Your task to perform on an android device: open app "Adobe Express: Graphic Design" Image 0: 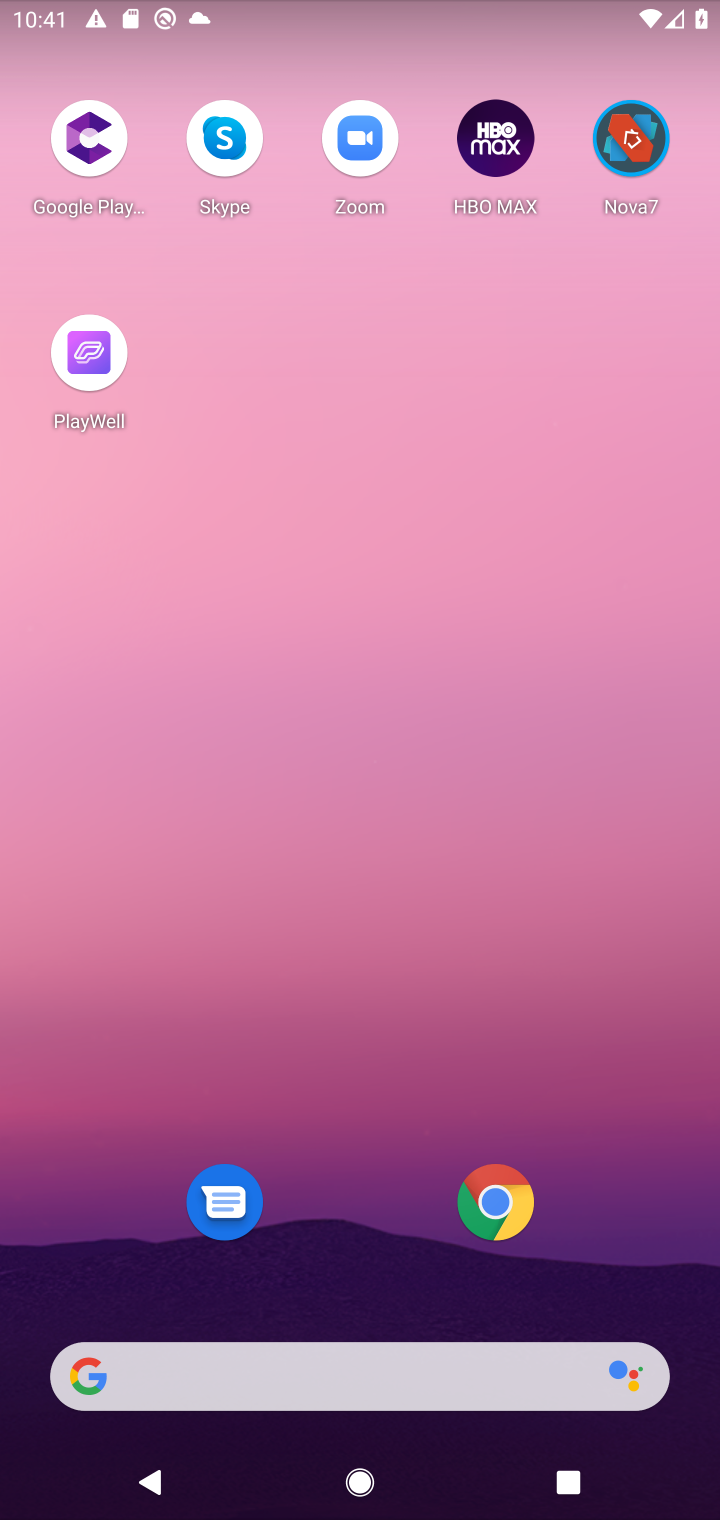
Step 0: click (428, 1390)
Your task to perform on an android device: open app "Adobe Express: Graphic Design" Image 1: 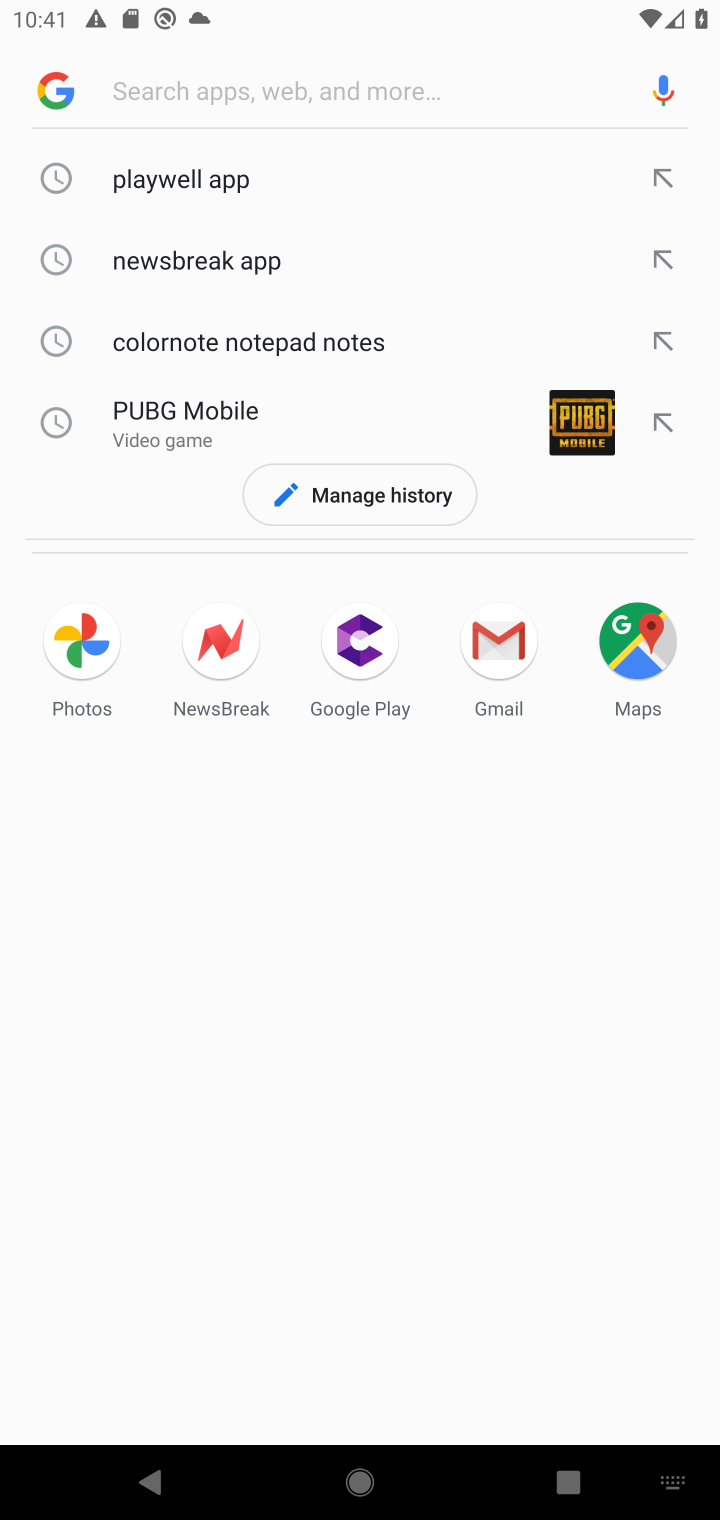
Step 1: type "adobe express"
Your task to perform on an android device: open app "Adobe Express: Graphic Design" Image 2: 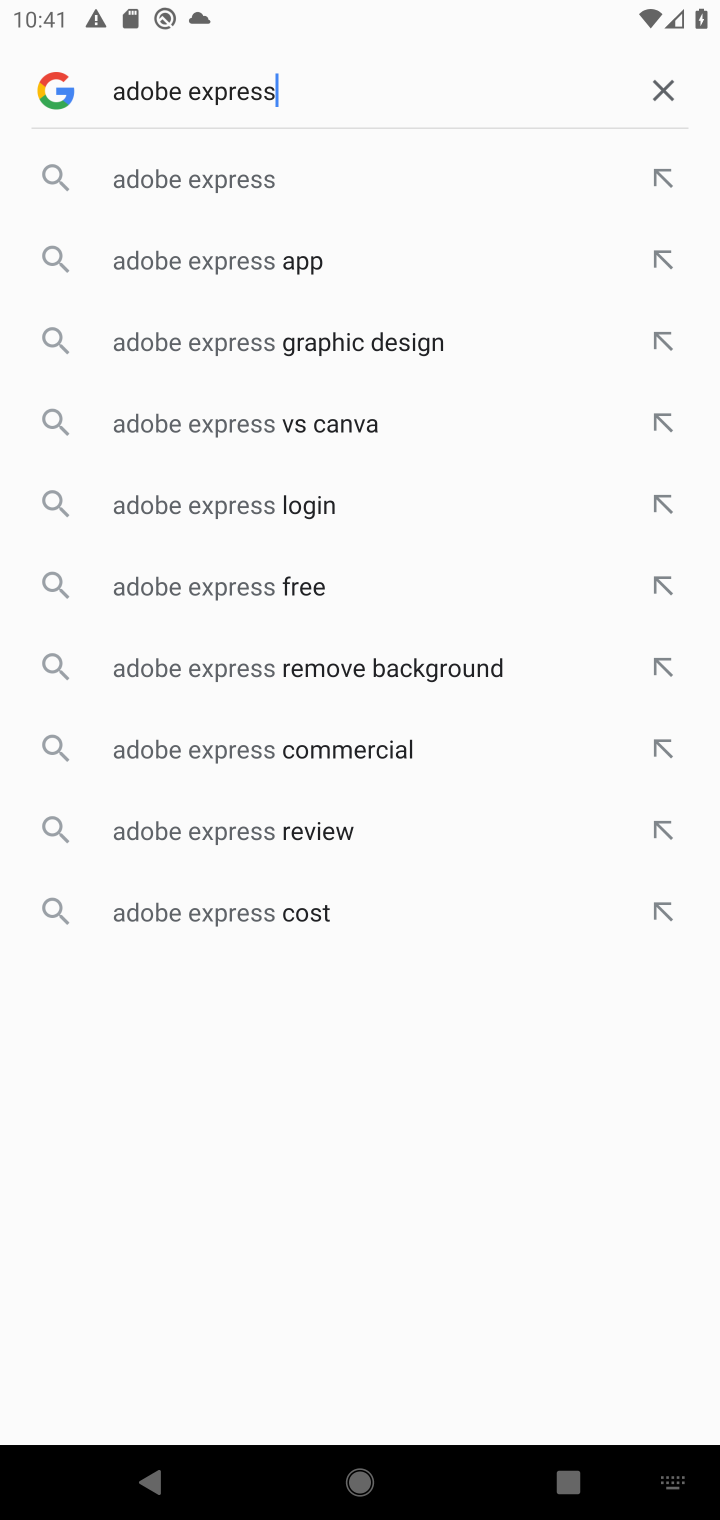
Step 2: click (314, 192)
Your task to perform on an android device: open app "Adobe Express: Graphic Design" Image 3: 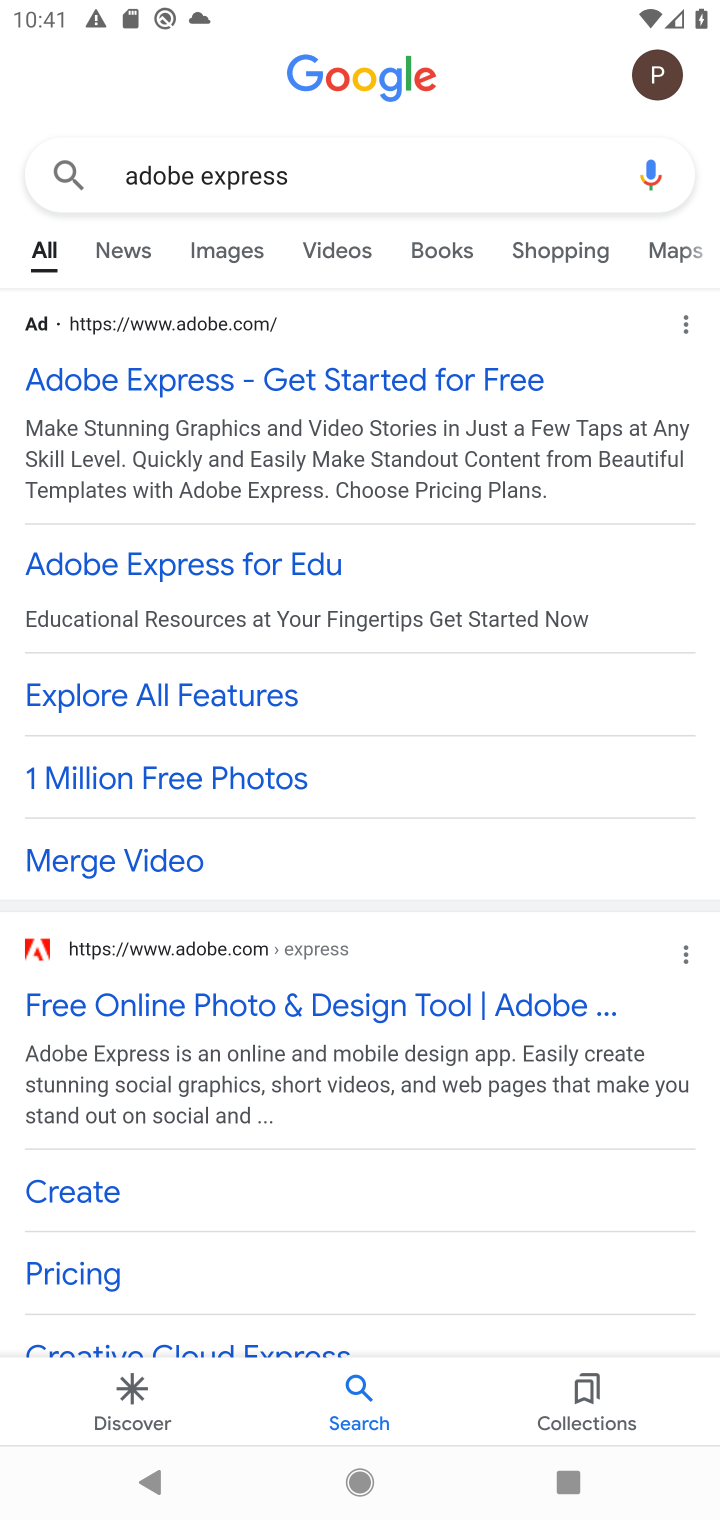
Step 3: drag from (361, 1138) to (426, 521)
Your task to perform on an android device: open app "Adobe Express: Graphic Design" Image 4: 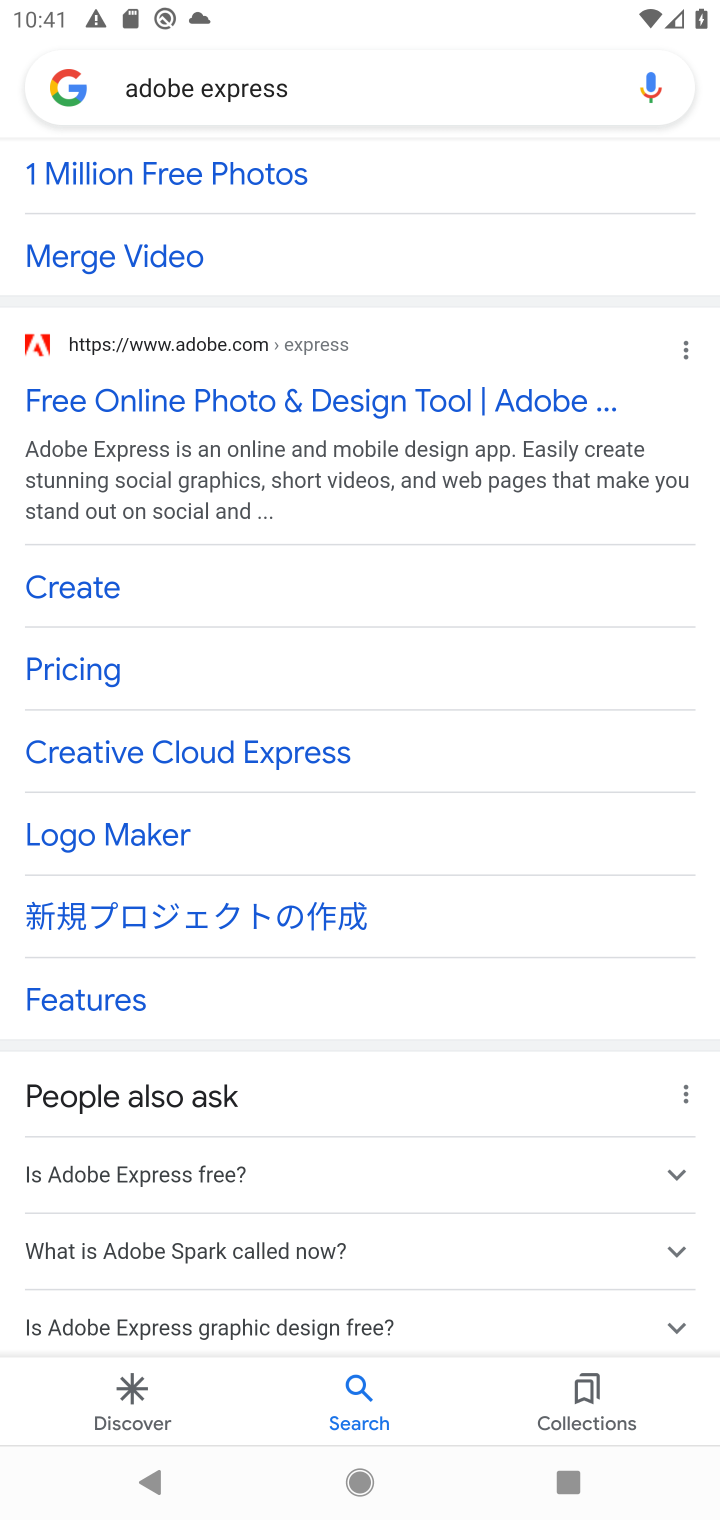
Step 4: drag from (366, 1258) to (422, 454)
Your task to perform on an android device: open app "Adobe Express: Graphic Design" Image 5: 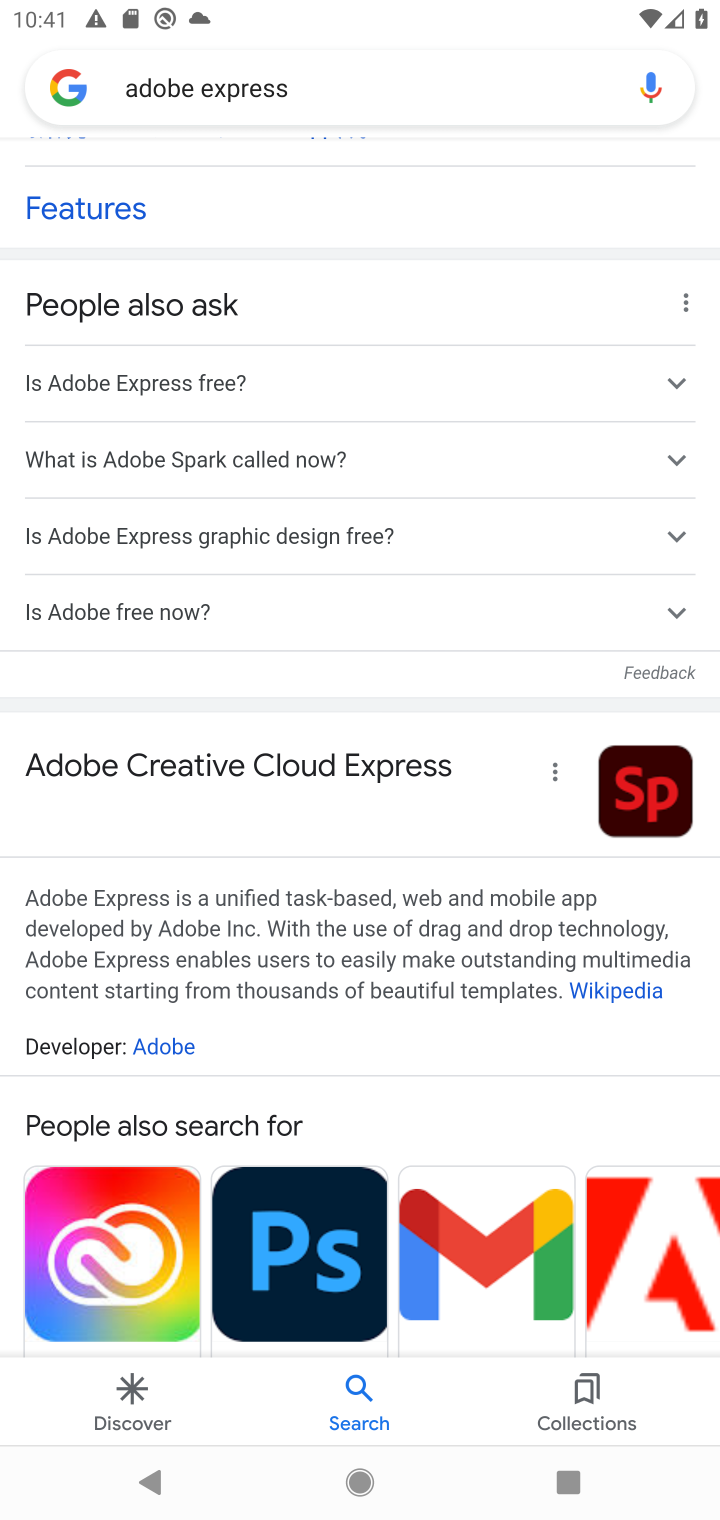
Step 5: drag from (396, 1114) to (420, 637)
Your task to perform on an android device: open app "Adobe Express: Graphic Design" Image 6: 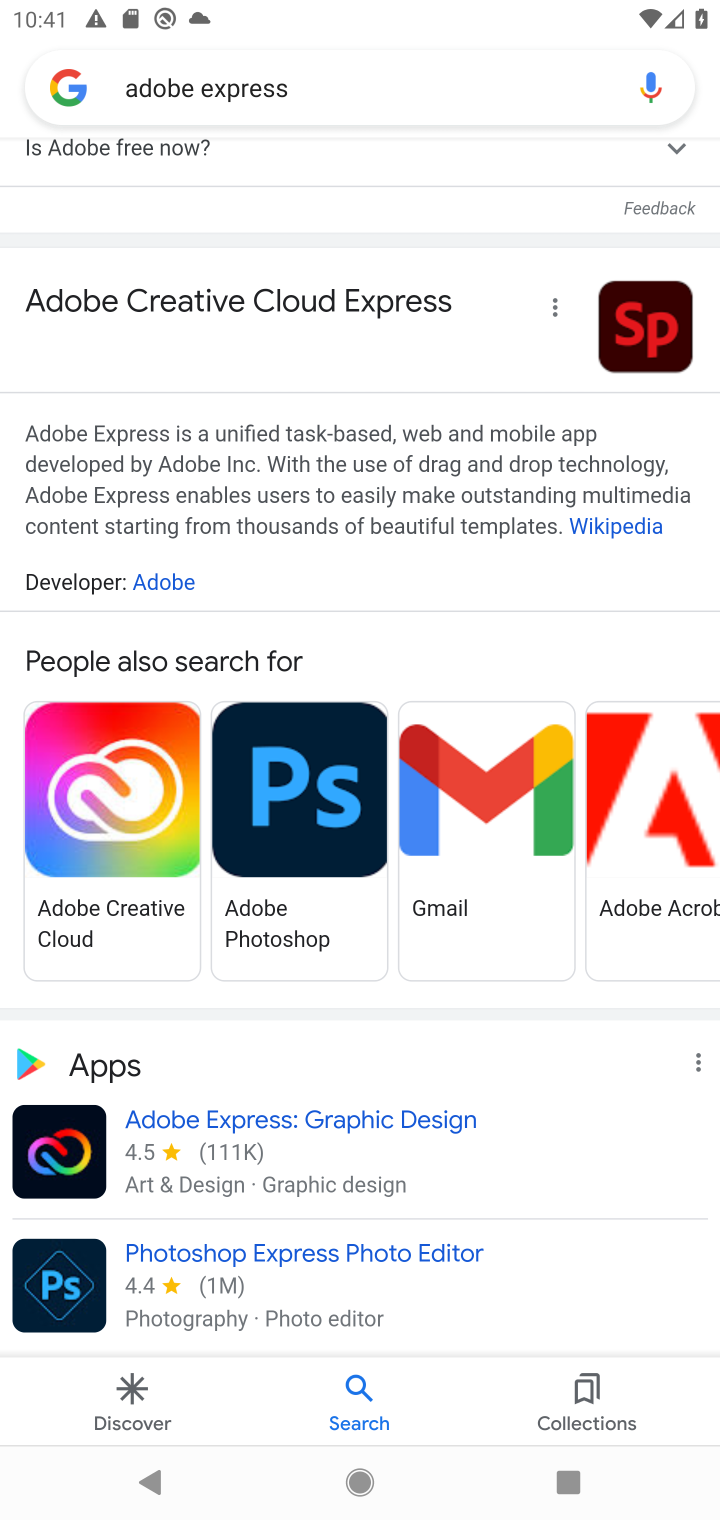
Step 6: click (416, 1198)
Your task to perform on an android device: open app "Adobe Express: Graphic Design" Image 7: 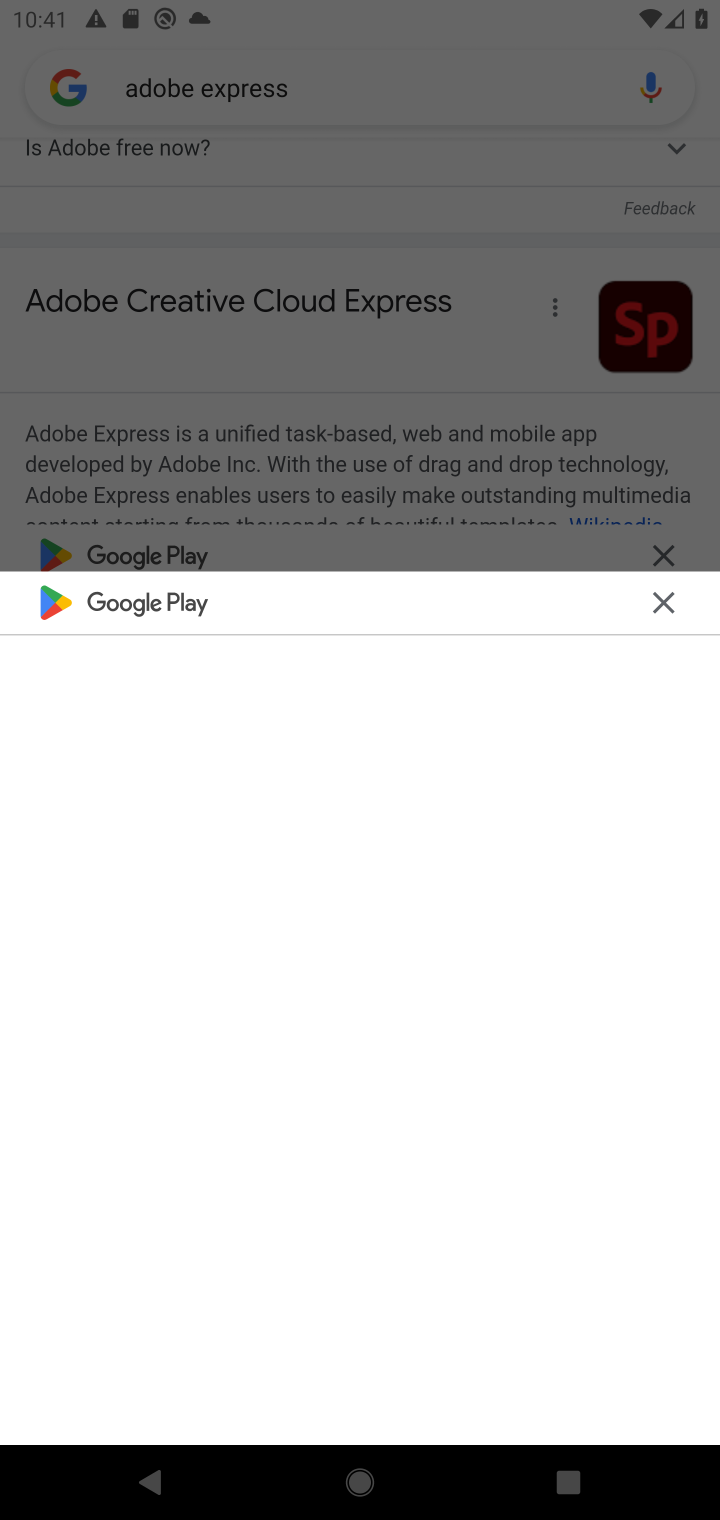
Step 7: task complete